Your task to perform on an android device: Open display settings Image 0: 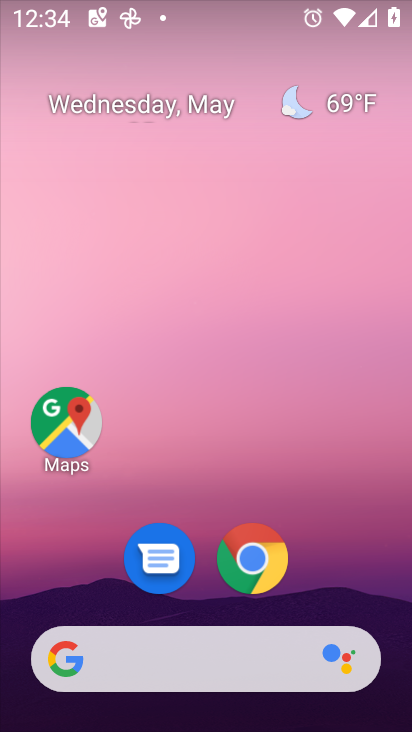
Step 0: drag from (380, 623) to (270, 24)
Your task to perform on an android device: Open display settings Image 1: 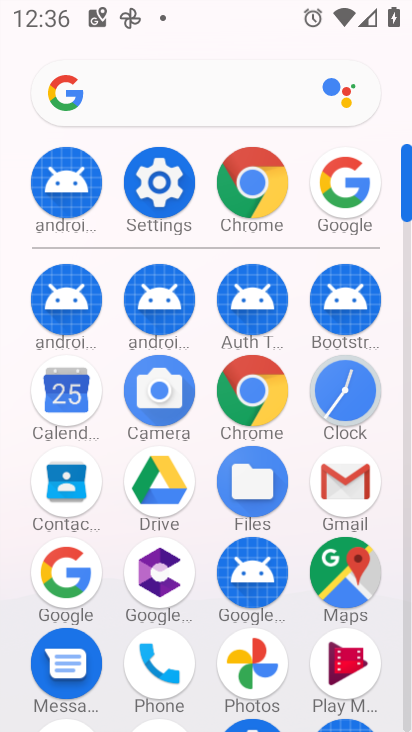
Step 1: click (141, 192)
Your task to perform on an android device: Open display settings Image 2: 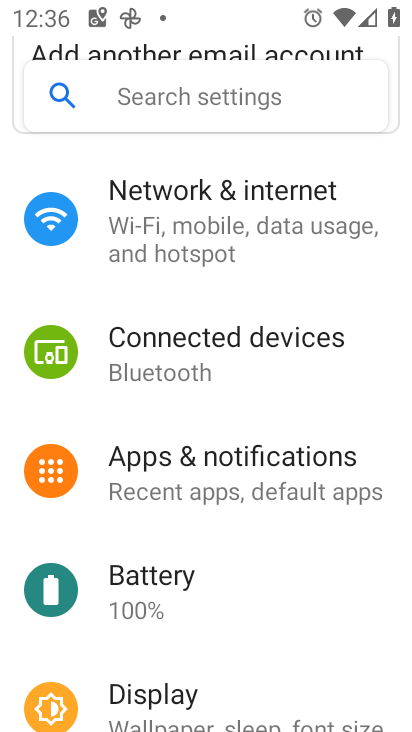
Step 2: click (186, 698)
Your task to perform on an android device: Open display settings Image 3: 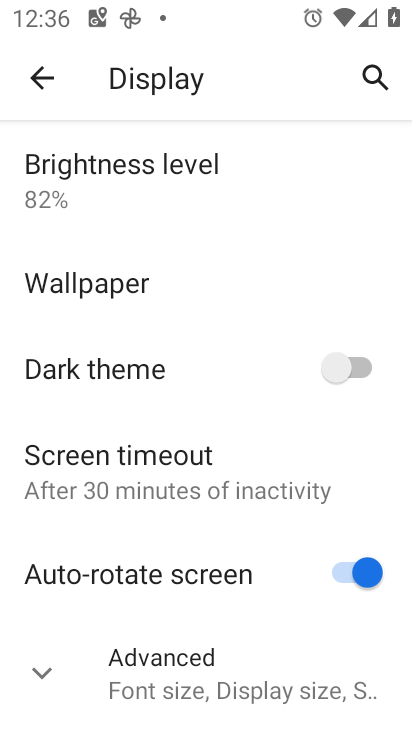
Step 3: task complete